Your task to perform on an android device: Show me popular videos on Youtube Image 0: 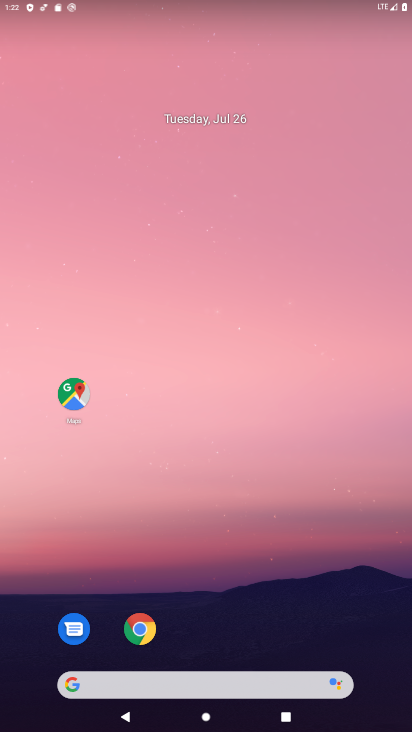
Step 0: drag from (379, 631) to (295, 170)
Your task to perform on an android device: Show me popular videos on Youtube Image 1: 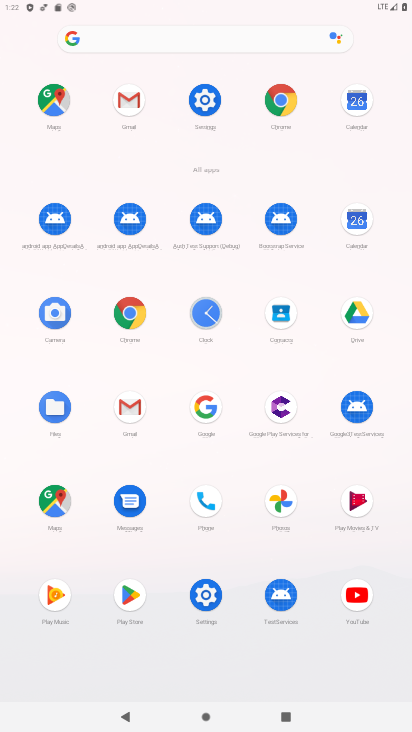
Step 1: click (361, 587)
Your task to perform on an android device: Show me popular videos on Youtube Image 2: 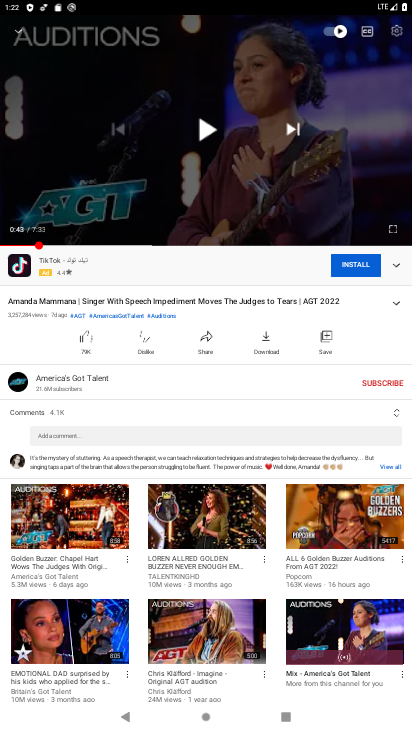
Step 2: press back button
Your task to perform on an android device: Show me popular videos on Youtube Image 3: 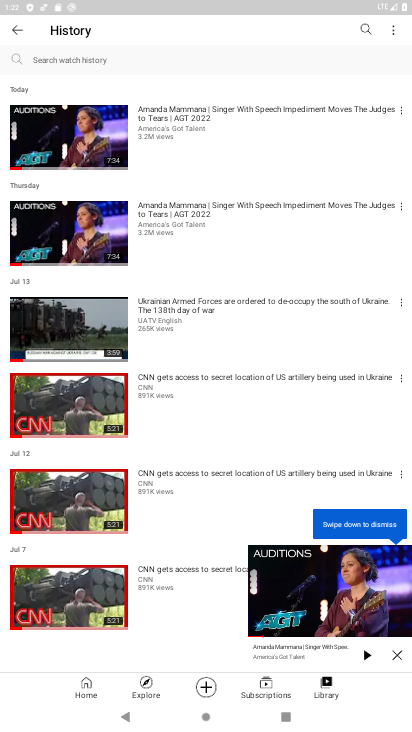
Step 3: click (12, 30)
Your task to perform on an android device: Show me popular videos on Youtube Image 4: 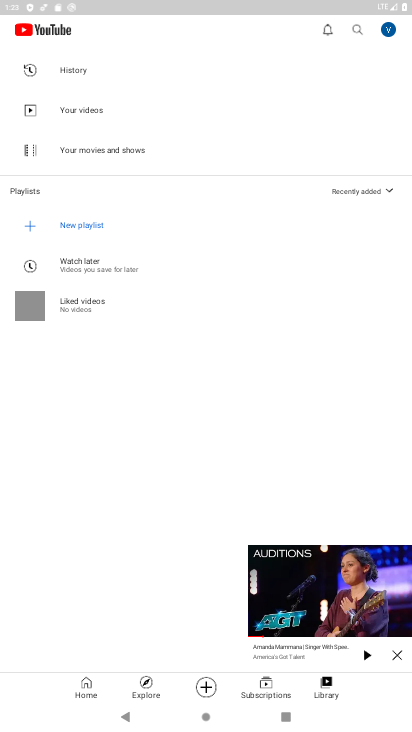
Step 4: press back button
Your task to perform on an android device: Show me popular videos on Youtube Image 5: 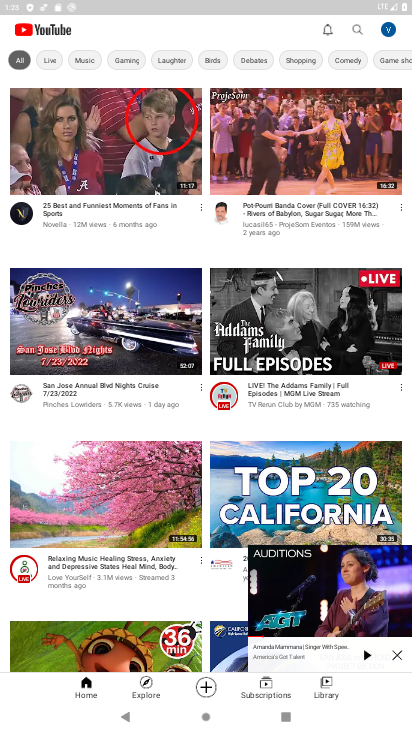
Step 5: click (358, 23)
Your task to perform on an android device: Show me popular videos on Youtube Image 6: 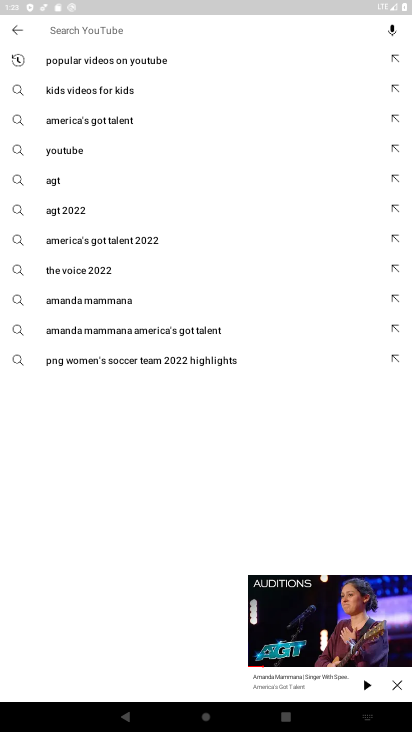
Step 6: type "popular videos on Youtube"
Your task to perform on an android device: Show me popular videos on Youtube Image 7: 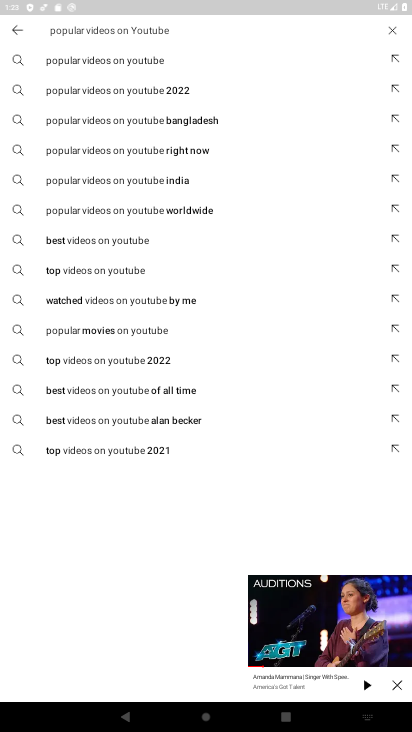
Step 7: click (95, 62)
Your task to perform on an android device: Show me popular videos on Youtube Image 8: 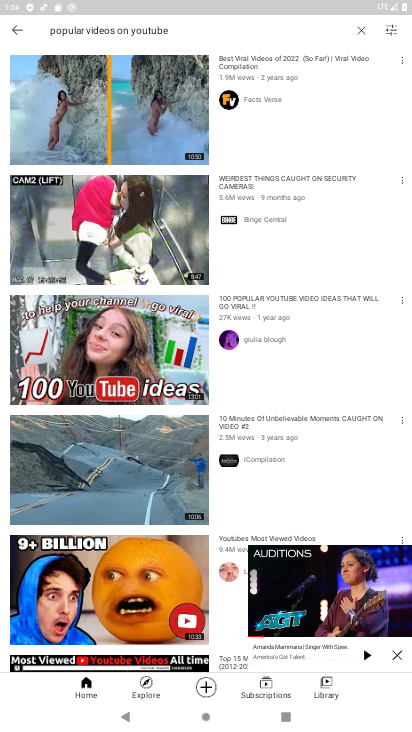
Step 8: click (148, 101)
Your task to perform on an android device: Show me popular videos on Youtube Image 9: 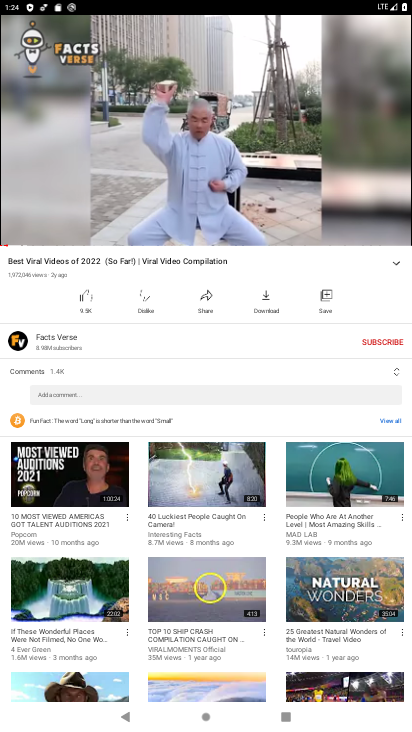
Step 9: task complete